Your task to perform on an android device: open a bookmark in the chrome app Image 0: 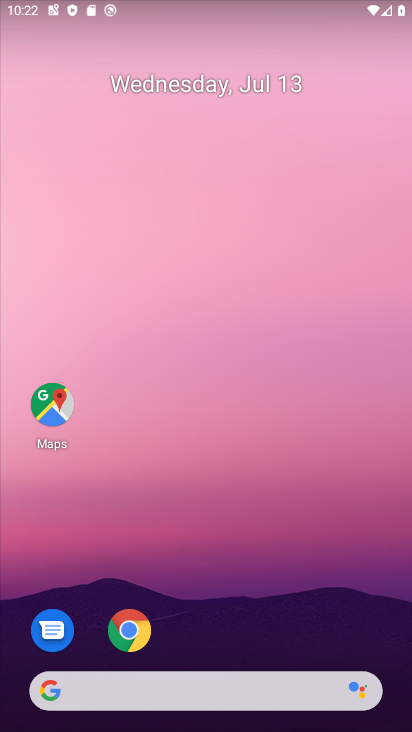
Step 0: drag from (176, 500) to (253, 40)
Your task to perform on an android device: open a bookmark in the chrome app Image 1: 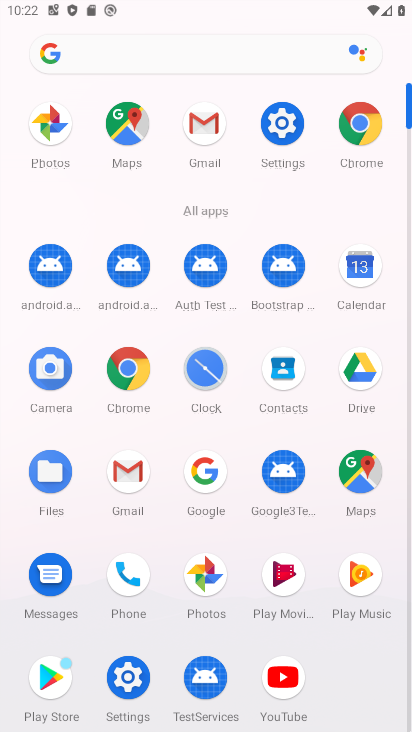
Step 1: click (357, 127)
Your task to perform on an android device: open a bookmark in the chrome app Image 2: 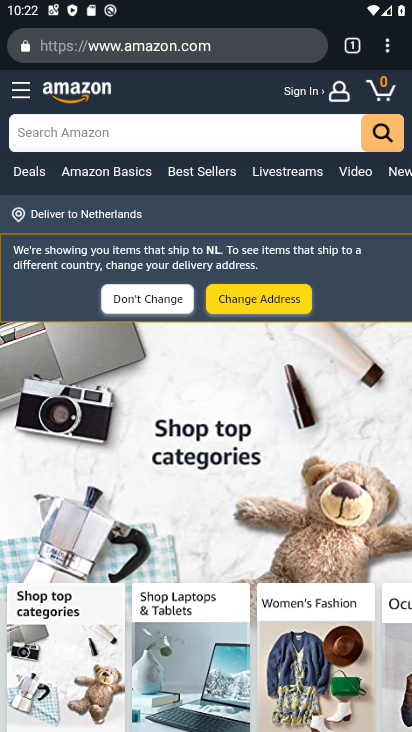
Step 2: drag from (390, 51) to (266, 170)
Your task to perform on an android device: open a bookmark in the chrome app Image 3: 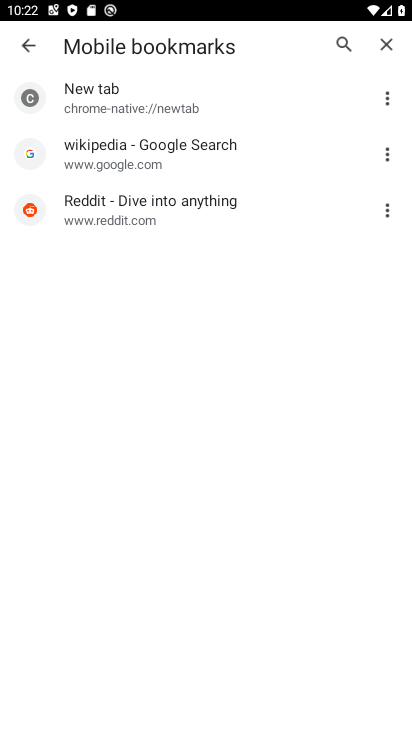
Step 3: click (175, 156)
Your task to perform on an android device: open a bookmark in the chrome app Image 4: 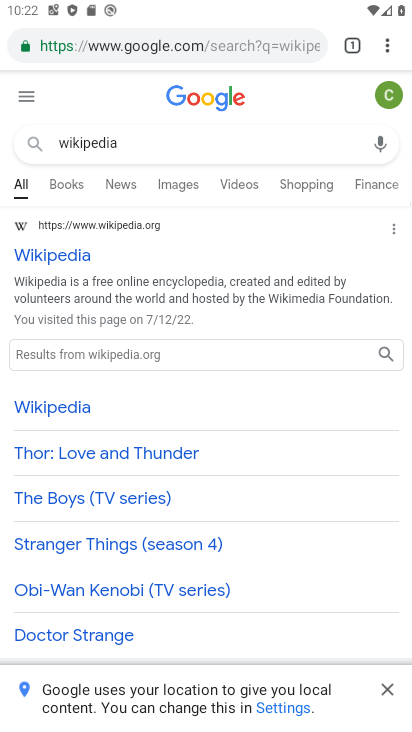
Step 4: task complete